Your task to perform on an android device: turn off javascript in the chrome app Image 0: 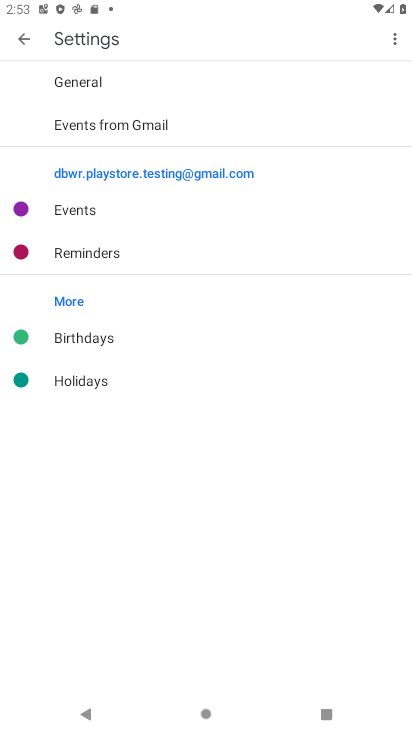
Step 0: press home button
Your task to perform on an android device: turn off javascript in the chrome app Image 1: 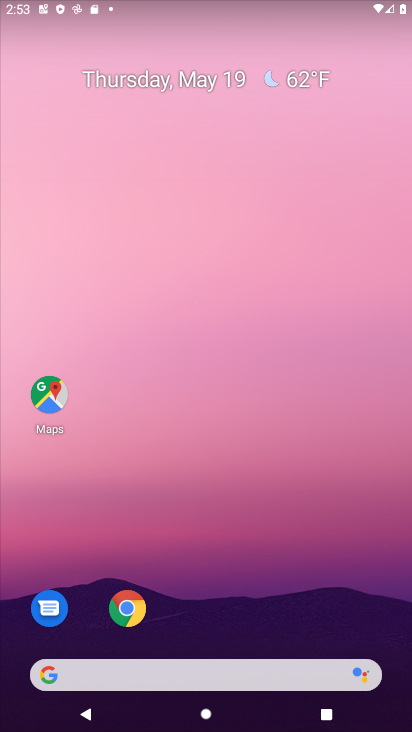
Step 1: click (122, 602)
Your task to perform on an android device: turn off javascript in the chrome app Image 2: 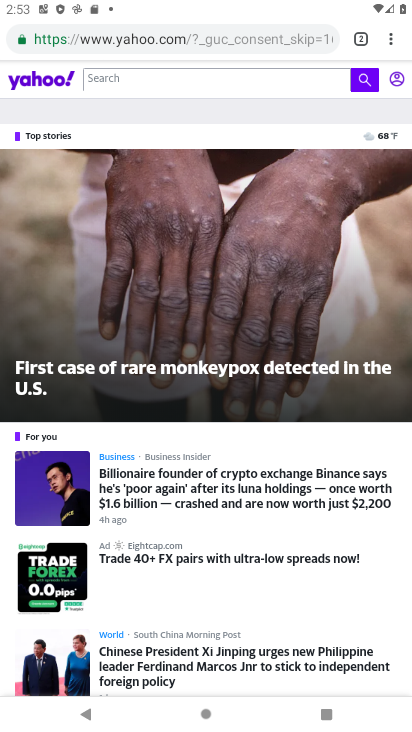
Step 2: click (391, 41)
Your task to perform on an android device: turn off javascript in the chrome app Image 3: 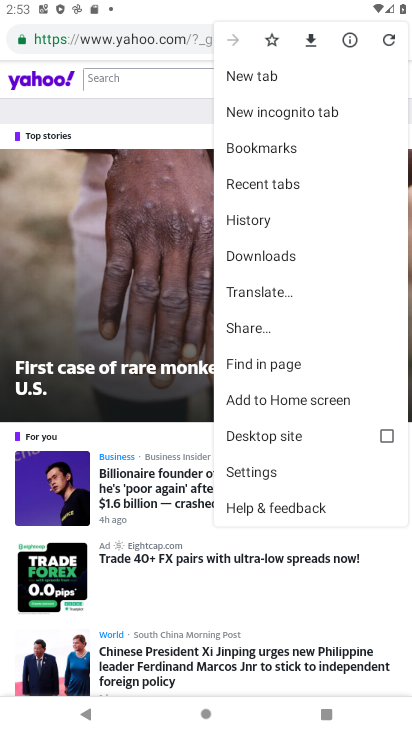
Step 3: click (275, 474)
Your task to perform on an android device: turn off javascript in the chrome app Image 4: 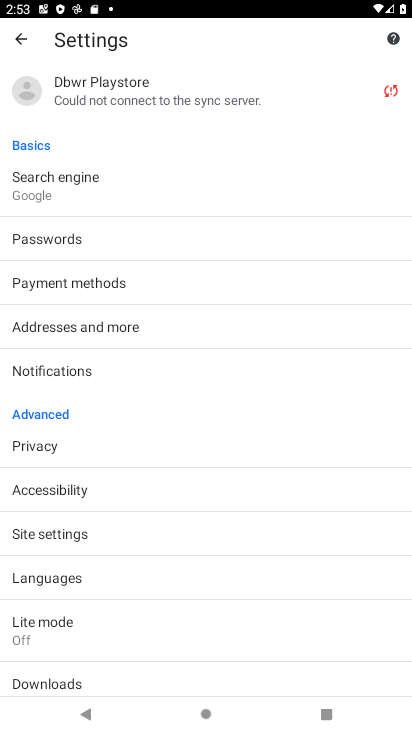
Step 4: click (183, 530)
Your task to perform on an android device: turn off javascript in the chrome app Image 5: 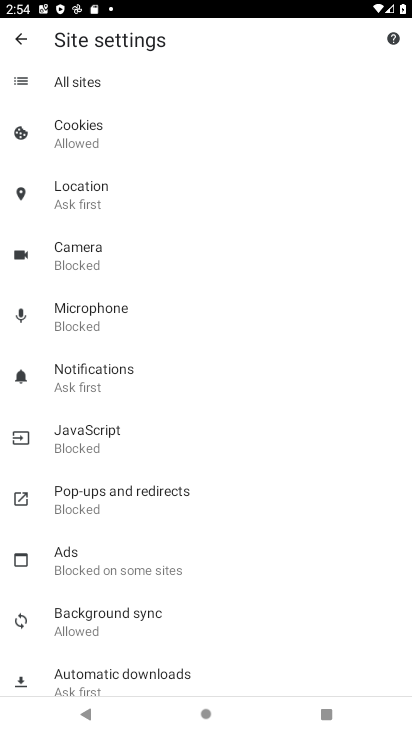
Step 5: click (153, 448)
Your task to perform on an android device: turn off javascript in the chrome app Image 6: 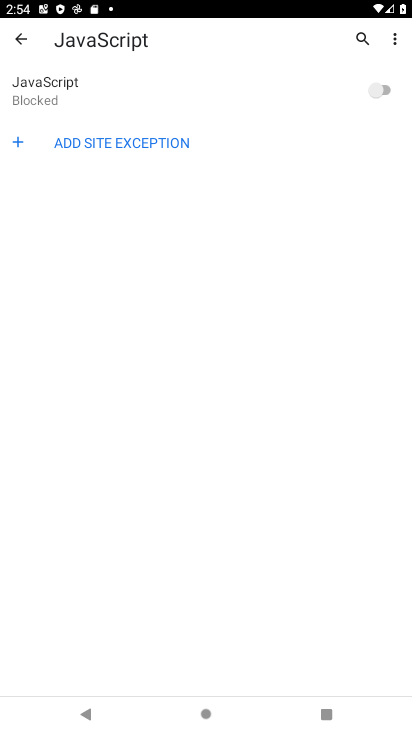
Step 6: click (380, 77)
Your task to perform on an android device: turn off javascript in the chrome app Image 7: 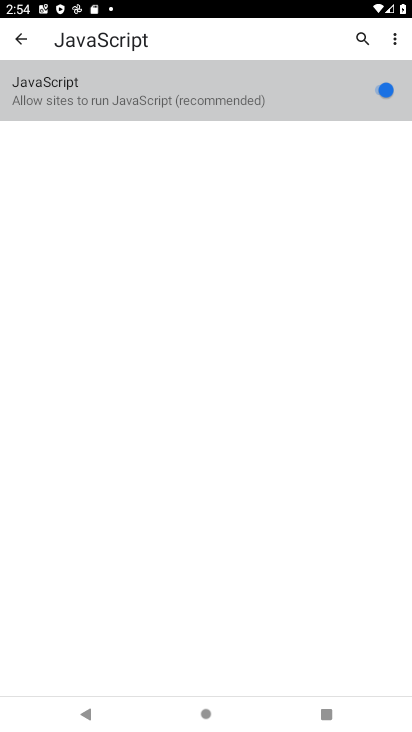
Step 7: click (380, 77)
Your task to perform on an android device: turn off javascript in the chrome app Image 8: 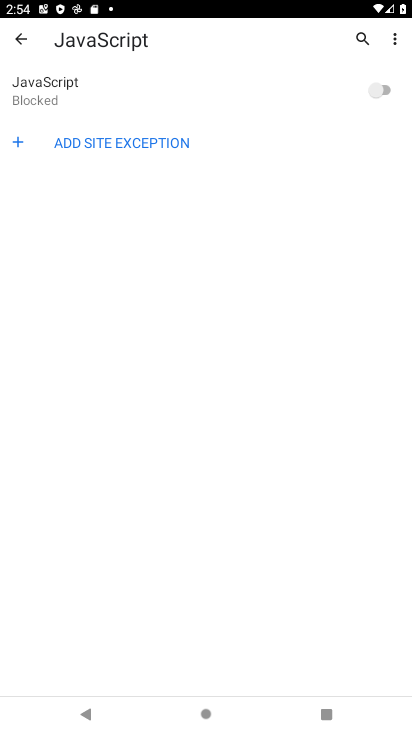
Step 8: task complete